Your task to perform on an android device: Search for pizza restaurants on Maps Image 0: 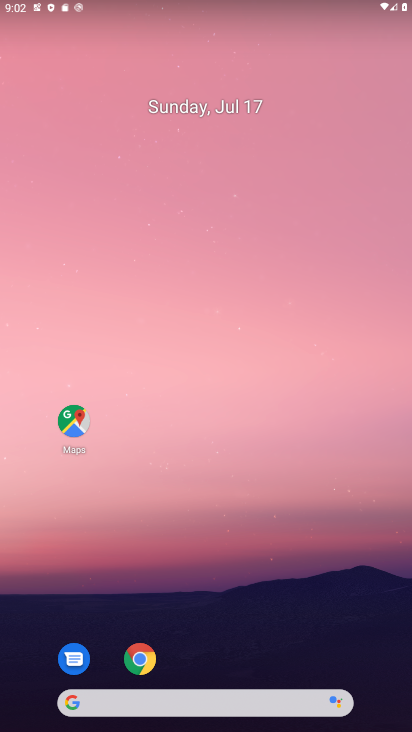
Step 0: click (65, 419)
Your task to perform on an android device: Search for pizza restaurants on Maps Image 1: 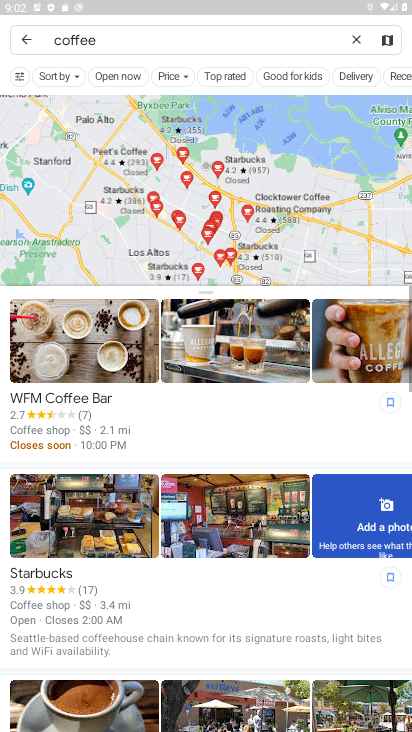
Step 1: click (351, 37)
Your task to perform on an android device: Search for pizza restaurants on Maps Image 2: 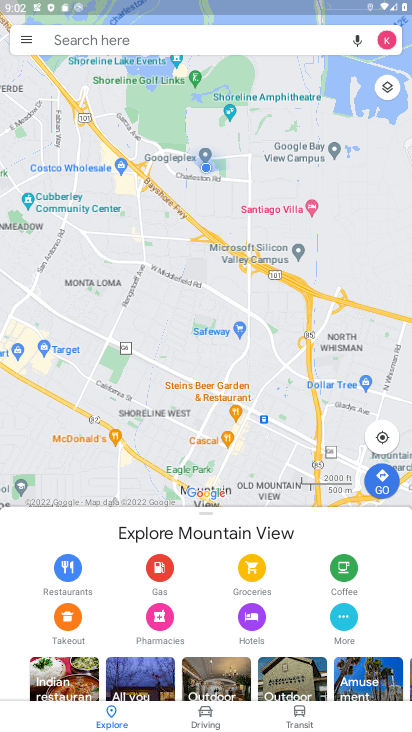
Step 2: click (208, 41)
Your task to perform on an android device: Search for pizza restaurants on Maps Image 3: 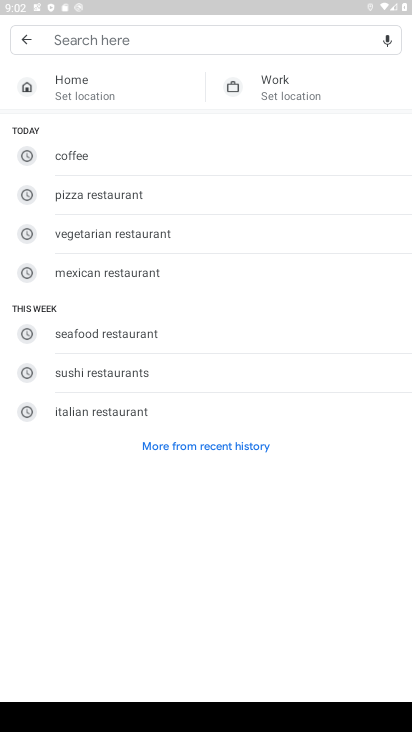
Step 3: click (131, 196)
Your task to perform on an android device: Search for pizza restaurants on Maps Image 4: 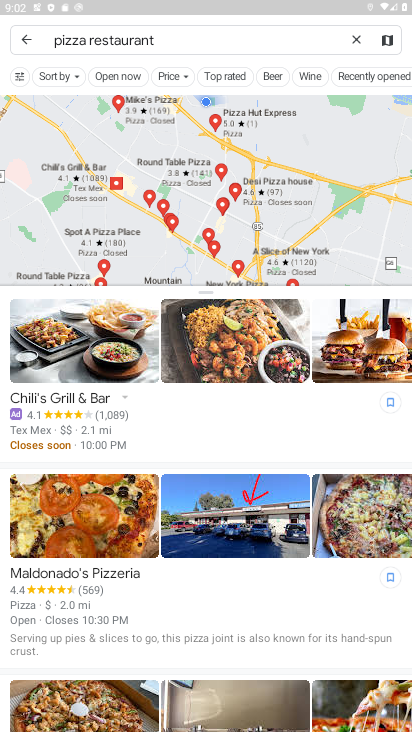
Step 4: task complete